Your task to perform on an android device: refresh tabs in the chrome app Image 0: 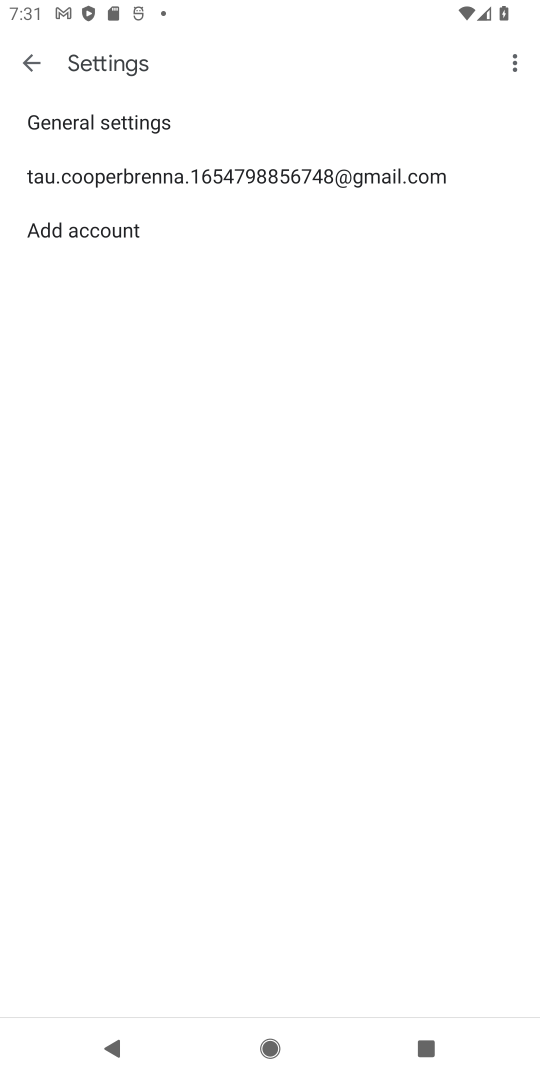
Step 0: press home button
Your task to perform on an android device: refresh tabs in the chrome app Image 1: 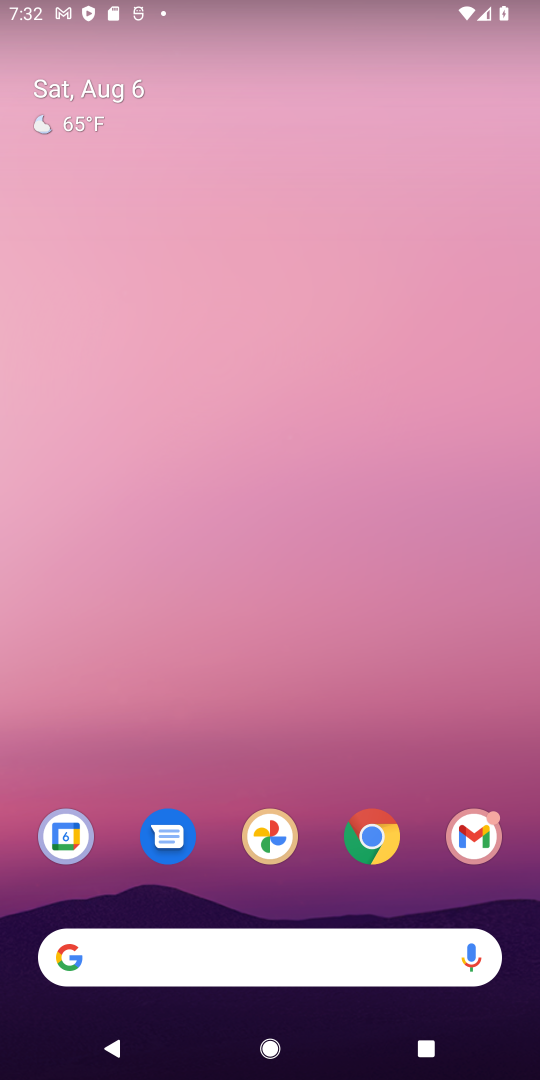
Step 1: drag from (439, 897) to (229, 98)
Your task to perform on an android device: refresh tabs in the chrome app Image 2: 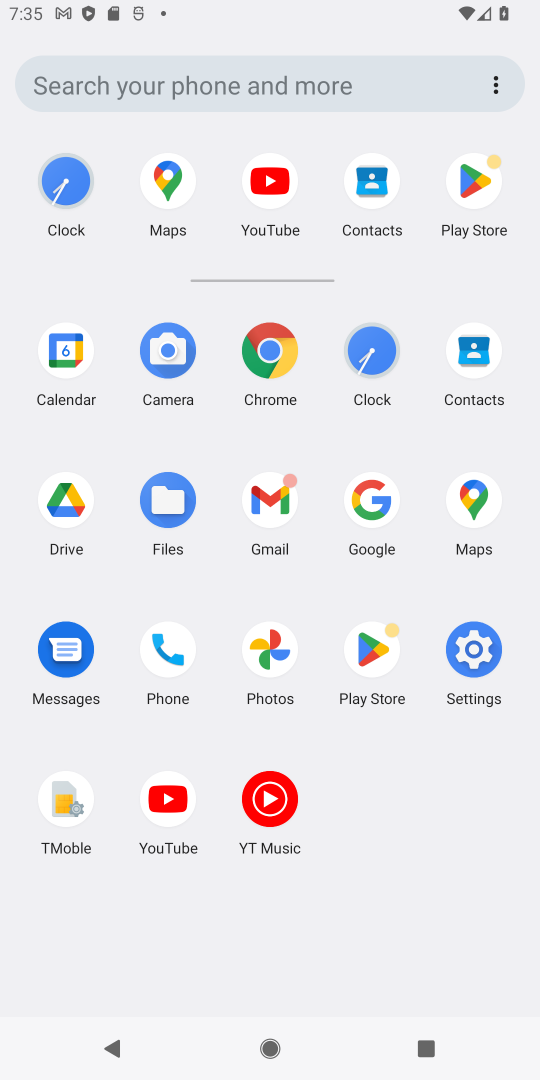
Step 2: click (286, 351)
Your task to perform on an android device: refresh tabs in the chrome app Image 3: 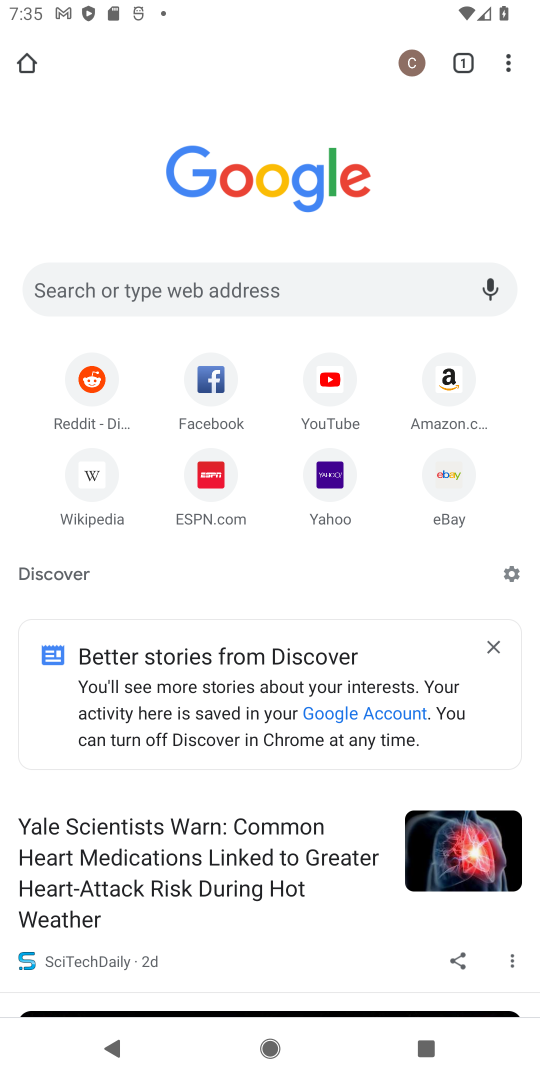
Step 3: click (499, 57)
Your task to perform on an android device: refresh tabs in the chrome app Image 4: 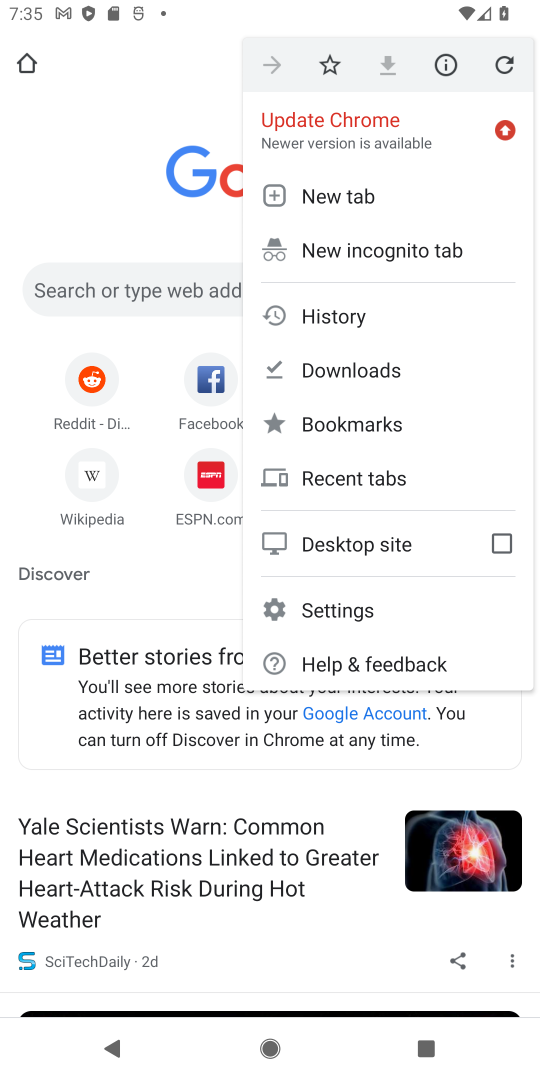
Step 4: click (515, 49)
Your task to perform on an android device: refresh tabs in the chrome app Image 5: 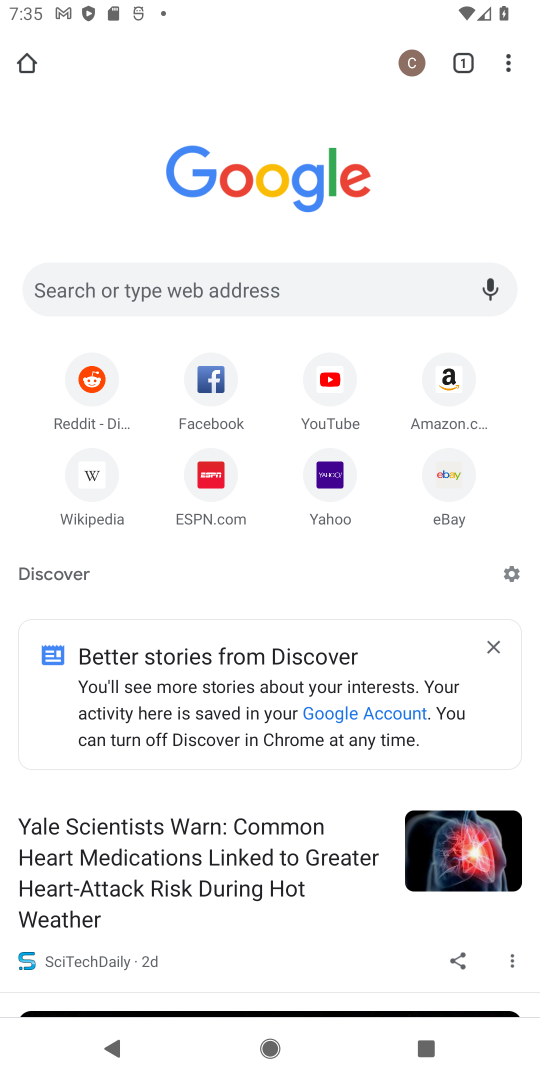
Step 5: task complete